Your task to perform on an android device: add a contact in the contacts app Image 0: 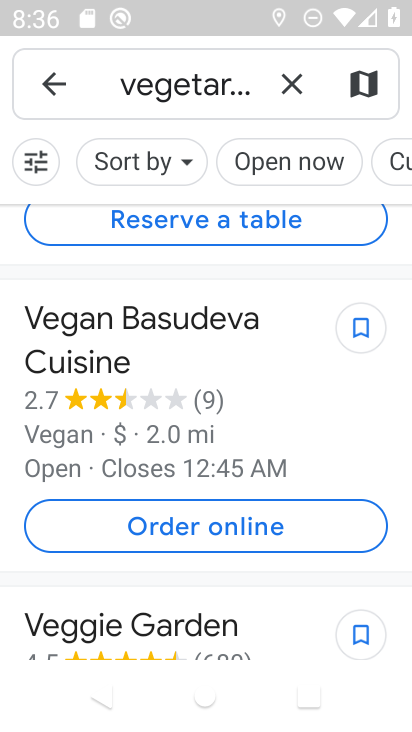
Step 0: press home button
Your task to perform on an android device: add a contact in the contacts app Image 1: 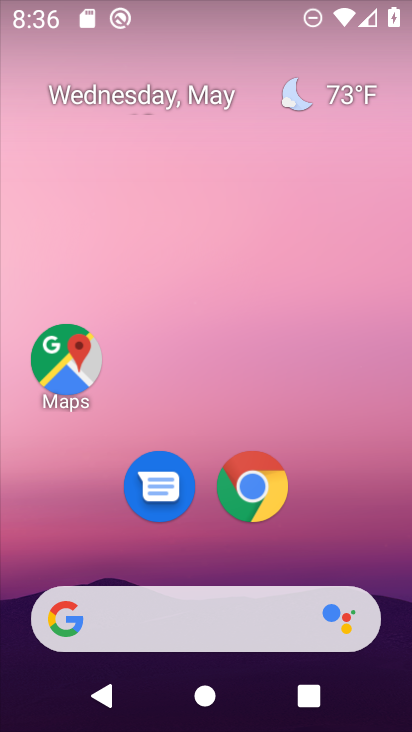
Step 1: drag from (389, 559) to (362, 109)
Your task to perform on an android device: add a contact in the contacts app Image 2: 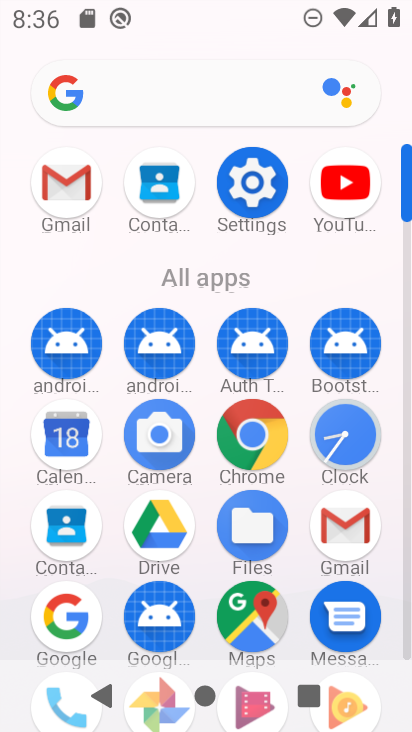
Step 2: click (68, 527)
Your task to perform on an android device: add a contact in the contacts app Image 3: 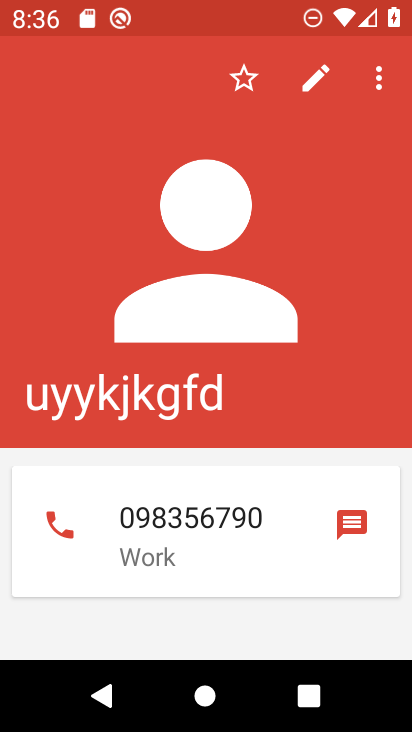
Step 3: press back button
Your task to perform on an android device: add a contact in the contacts app Image 4: 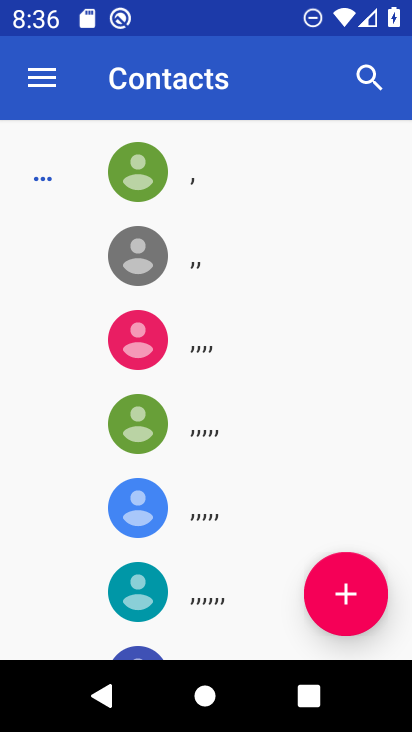
Step 4: click (345, 596)
Your task to perform on an android device: add a contact in the contacts app Image 5: 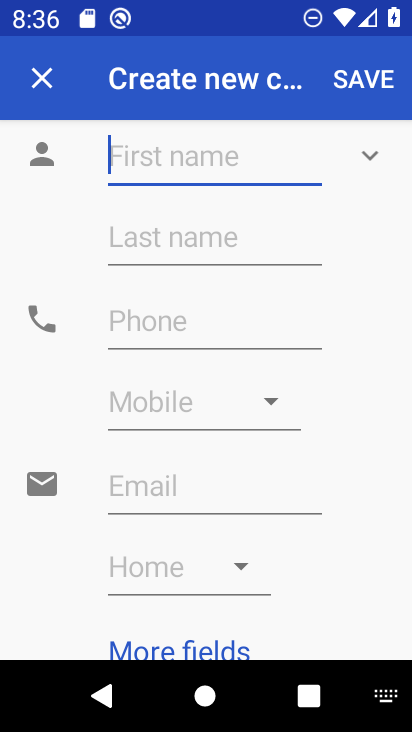
Step 5: type "khfyertnm"
Your task to perform on an android device: add a contact in the contacts app Image 6: 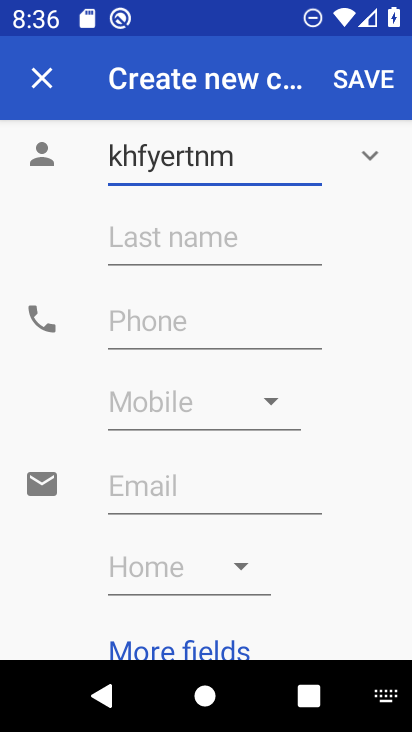
Step 6: click (161, 327)
Your task to perform on an android device: add a contact in the contacts app Image 7: 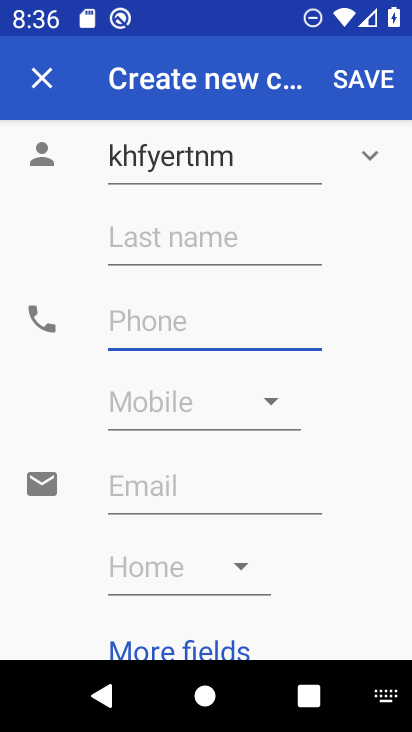
Step 7: type "780245098"
Your task to perform on an android device: add a contact in the contacts app Image 8: 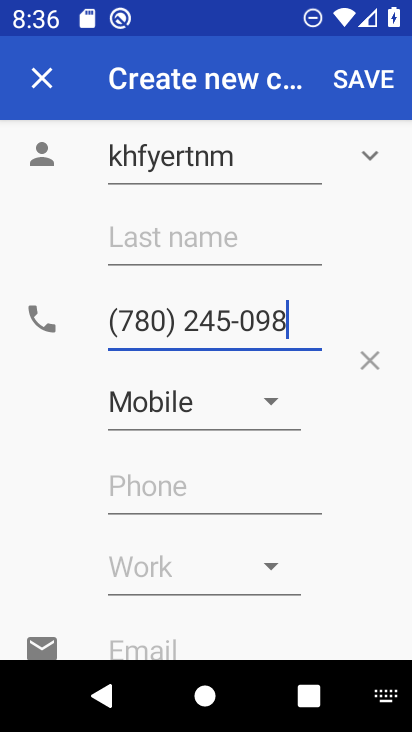
Step 8: click (275, 402)
Your task to perform on an android device: add a contact in the contacts app Image 9: 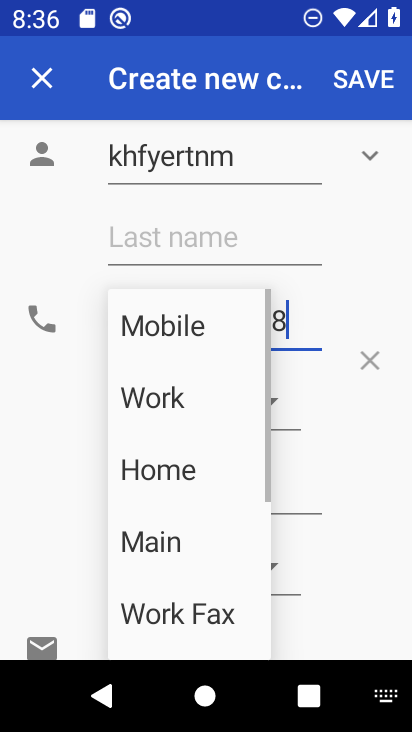
Step 9: click (177, 399)
Your task to perform on an android device: add a contact in the contacts app Image 10: 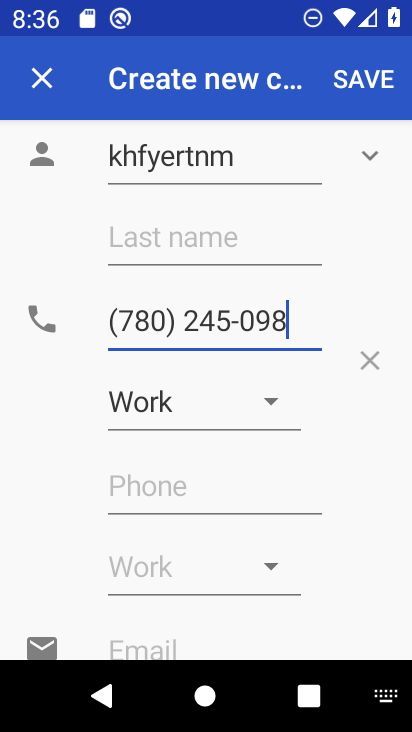
Step 10: click (364, 69)
Your task to perform on an android device: add a contact in the contacts app Image 11: 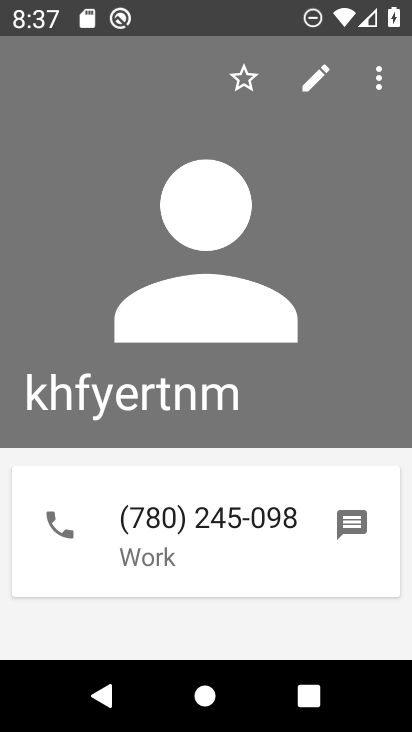
Step 11: task complete